Your task to perform on an android device: Where can I buy a nice beach blanket? Image 0: 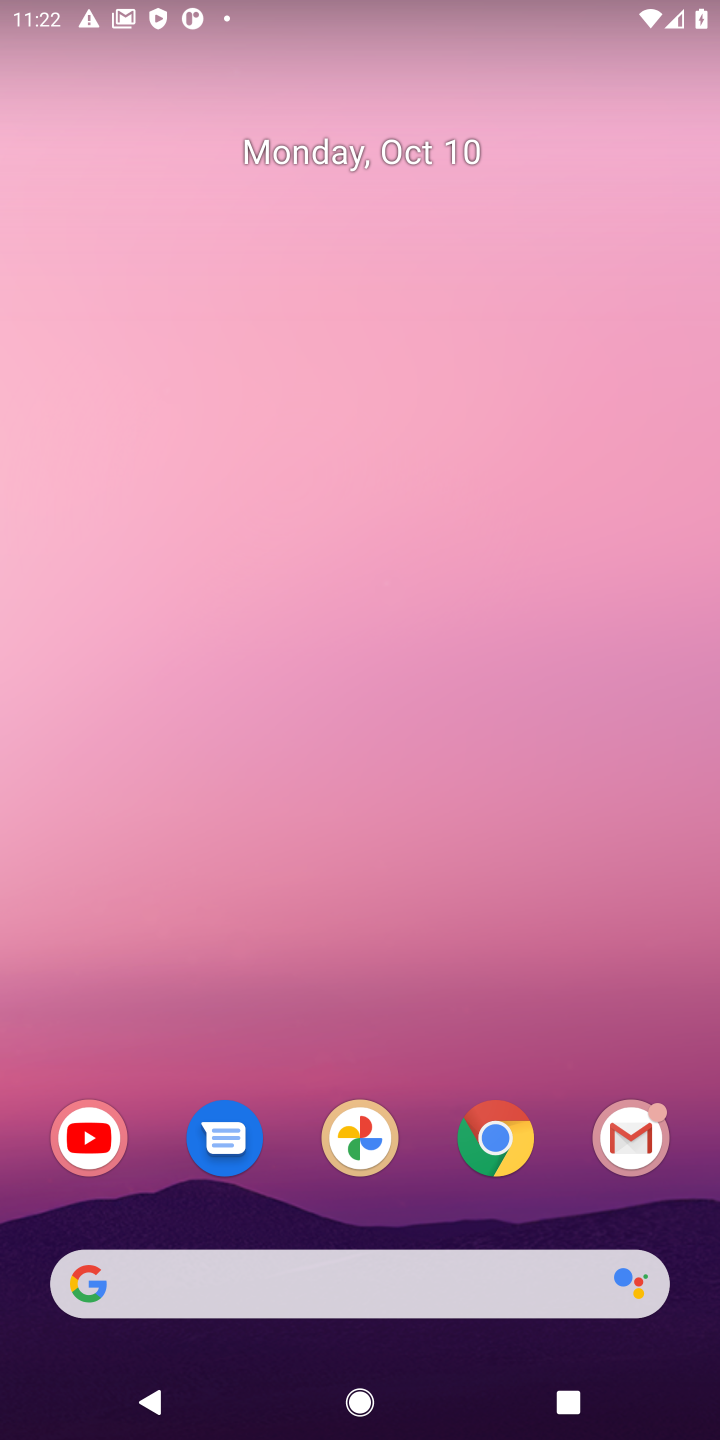
Step 0: click (84, 1285)
Your task to perform on an android device: Where can I buy a nice beach blanket? Image 1: 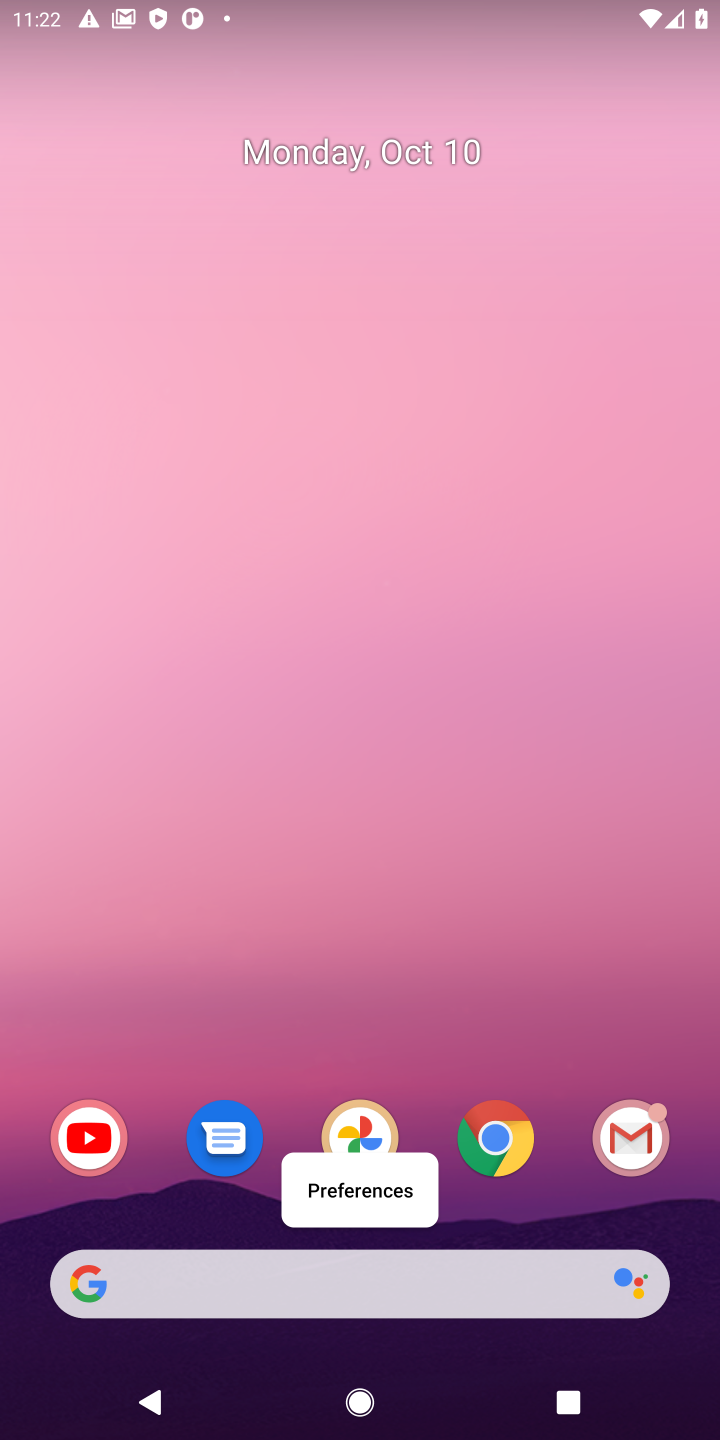
Step 1: click (82, 1291)
Your task to perform on an android device: Where can I buy a nice beach blanket? Image 2: 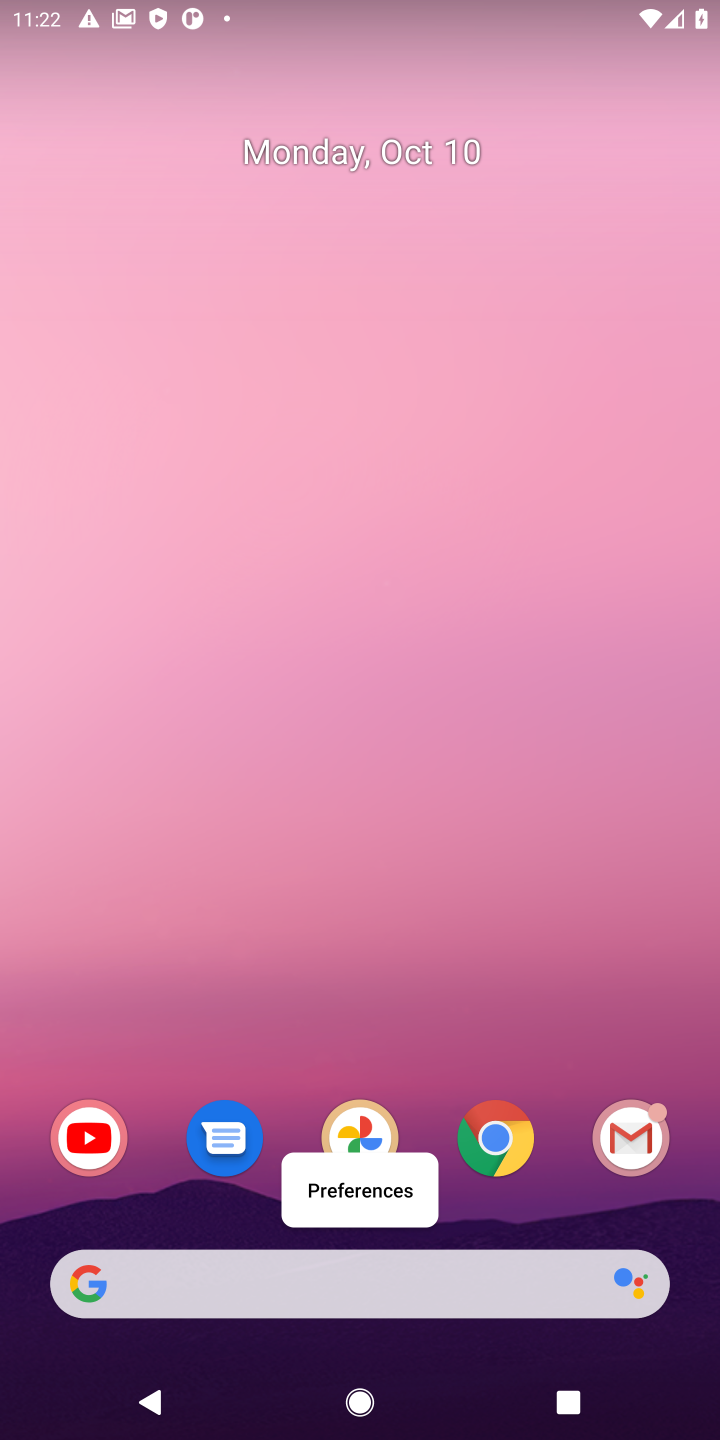
Step 2: click (82, 1280)
Your task to perform on an android device: Where can I buy a nice beach blanket? Image 3: 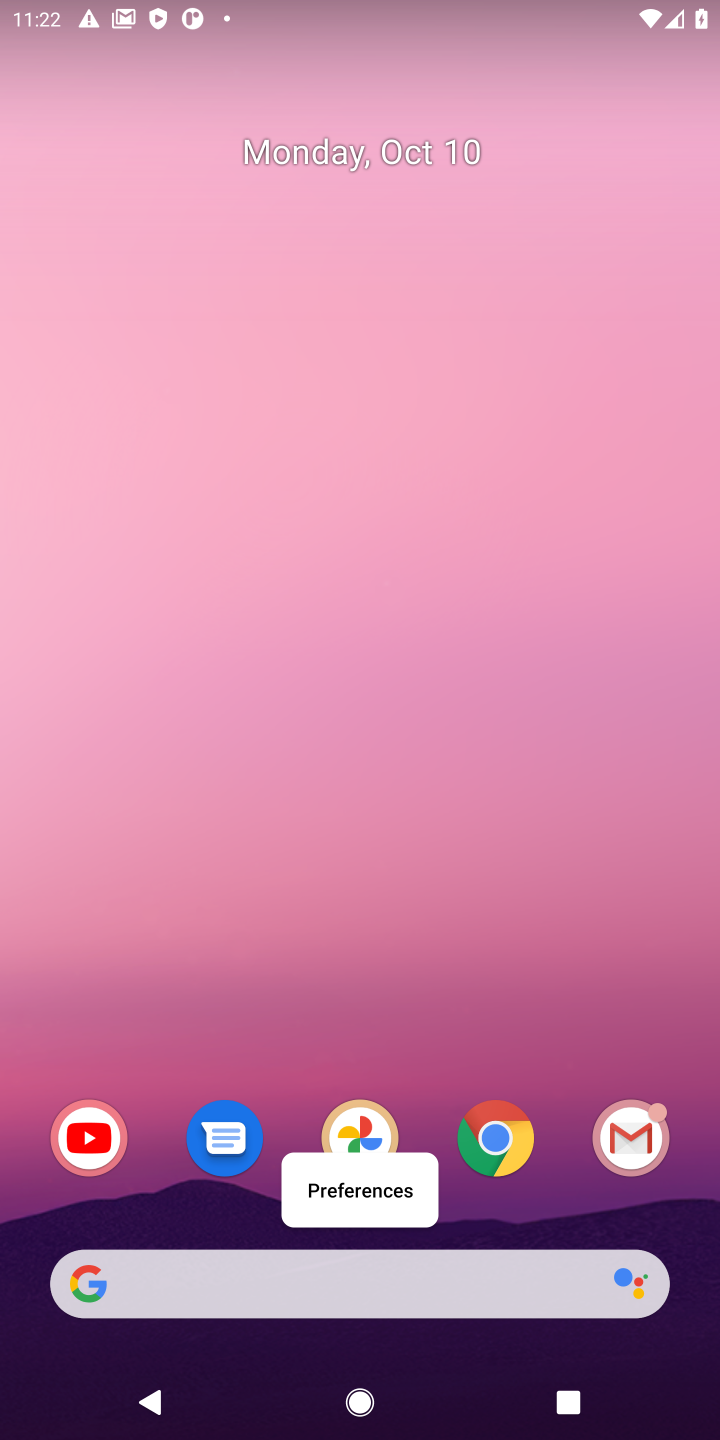
Step 3: click (84, 1280)
Your task to perform on an android device: Where can I buy a nice beach blanket? Image 4: 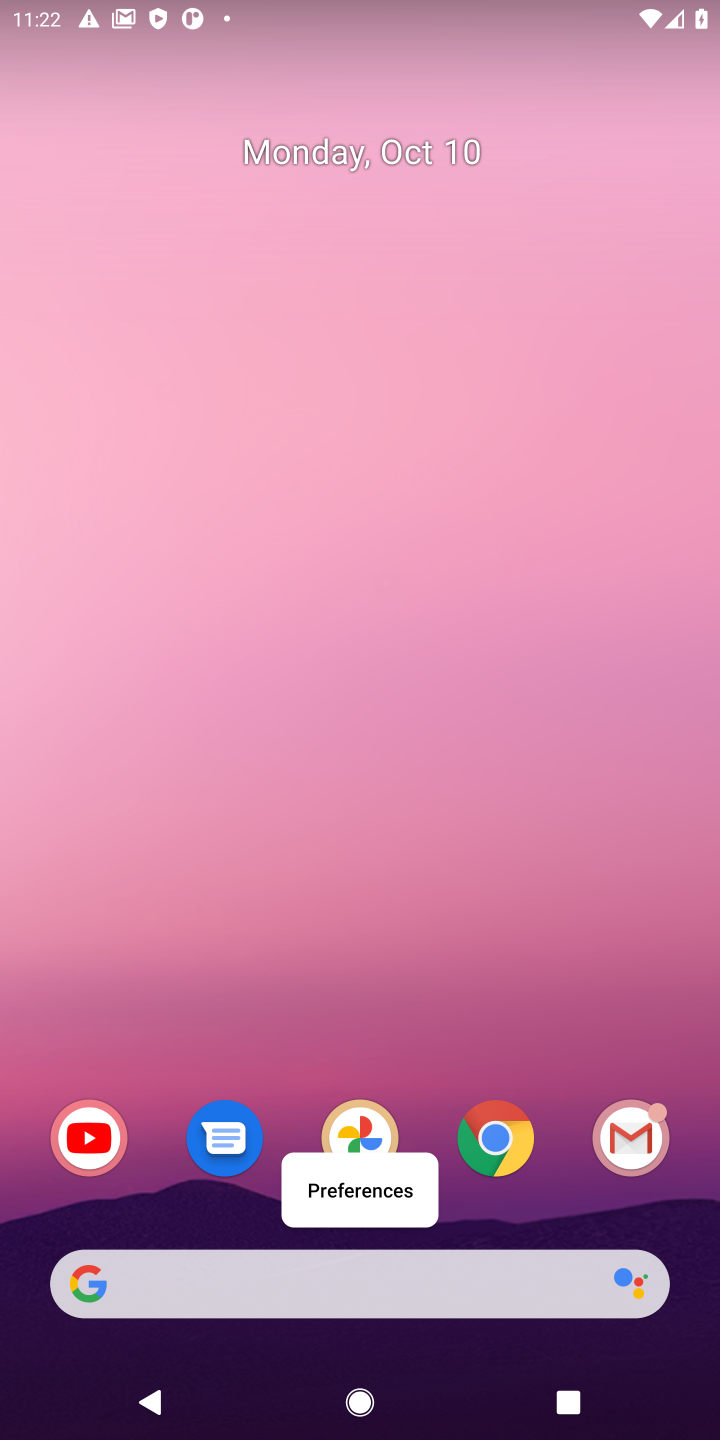
Step 4: click (93, 1292)
Your task to perform on an android device: Where can I buy a nice beach blanket? Image 5: 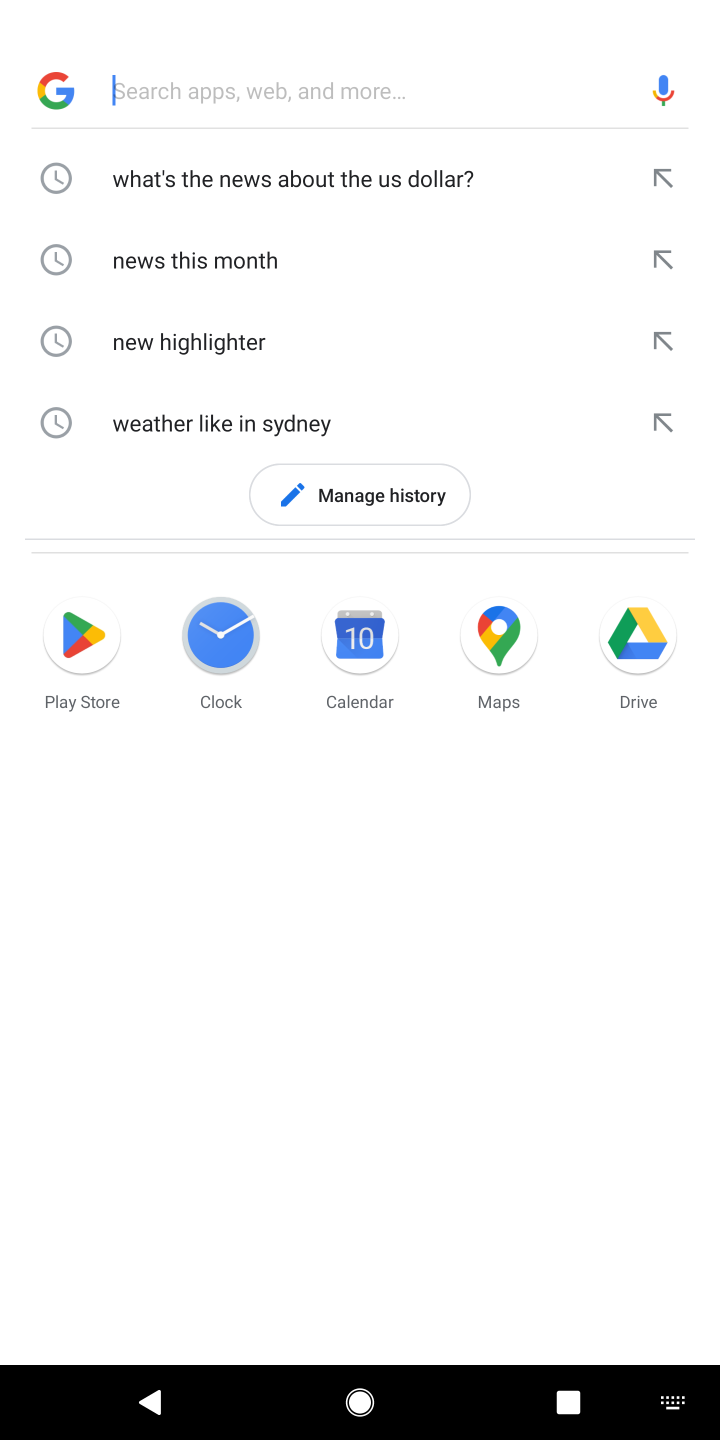
Step 5: type "Where can I buy a nice beach blanket?"
Your task to perform on an android device: Where can I buy a nice beach blanket? Image 6: 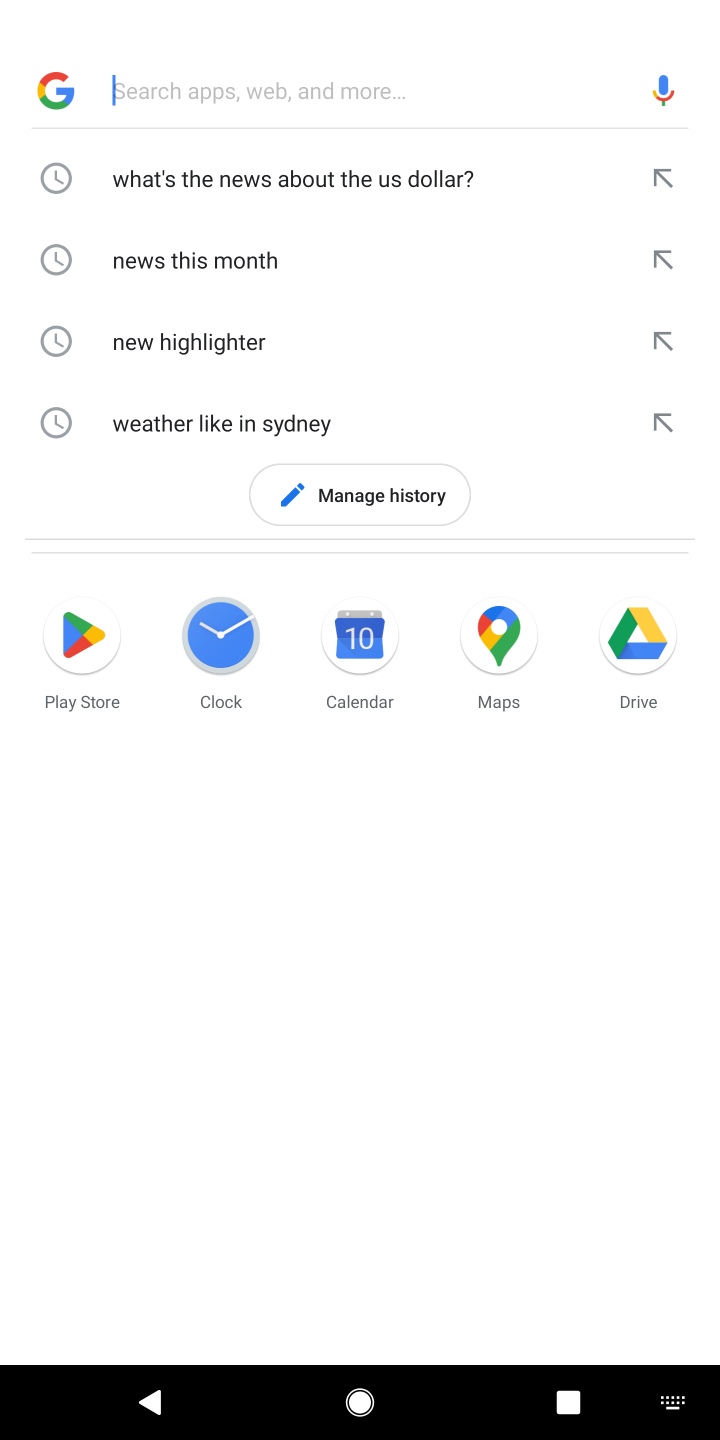
Step 6: click (329, 79)
Your task to perform on an android device: Where can I buy a nice beach blanket? Image 7: 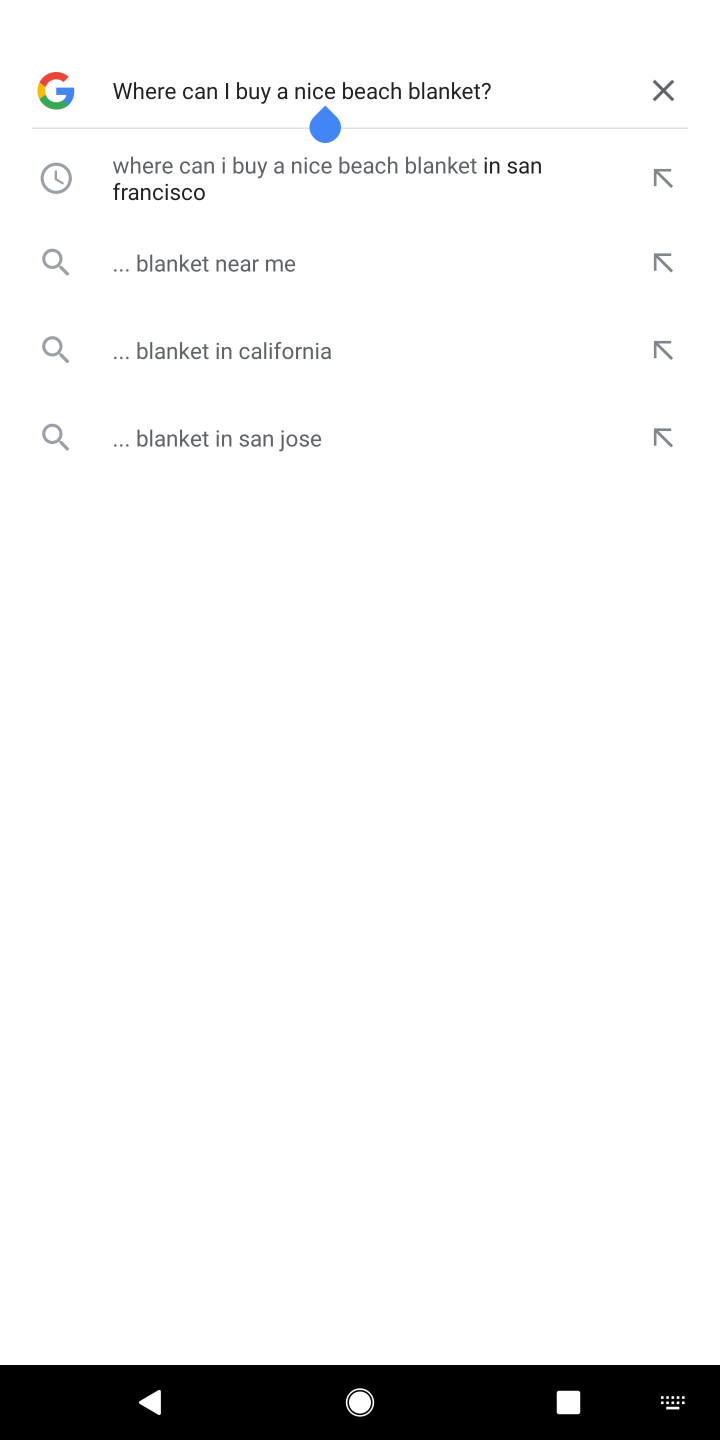
Step 7: press enter
Your task to perform on an android device: Where can I buy a nice beach blanket? Image 8: 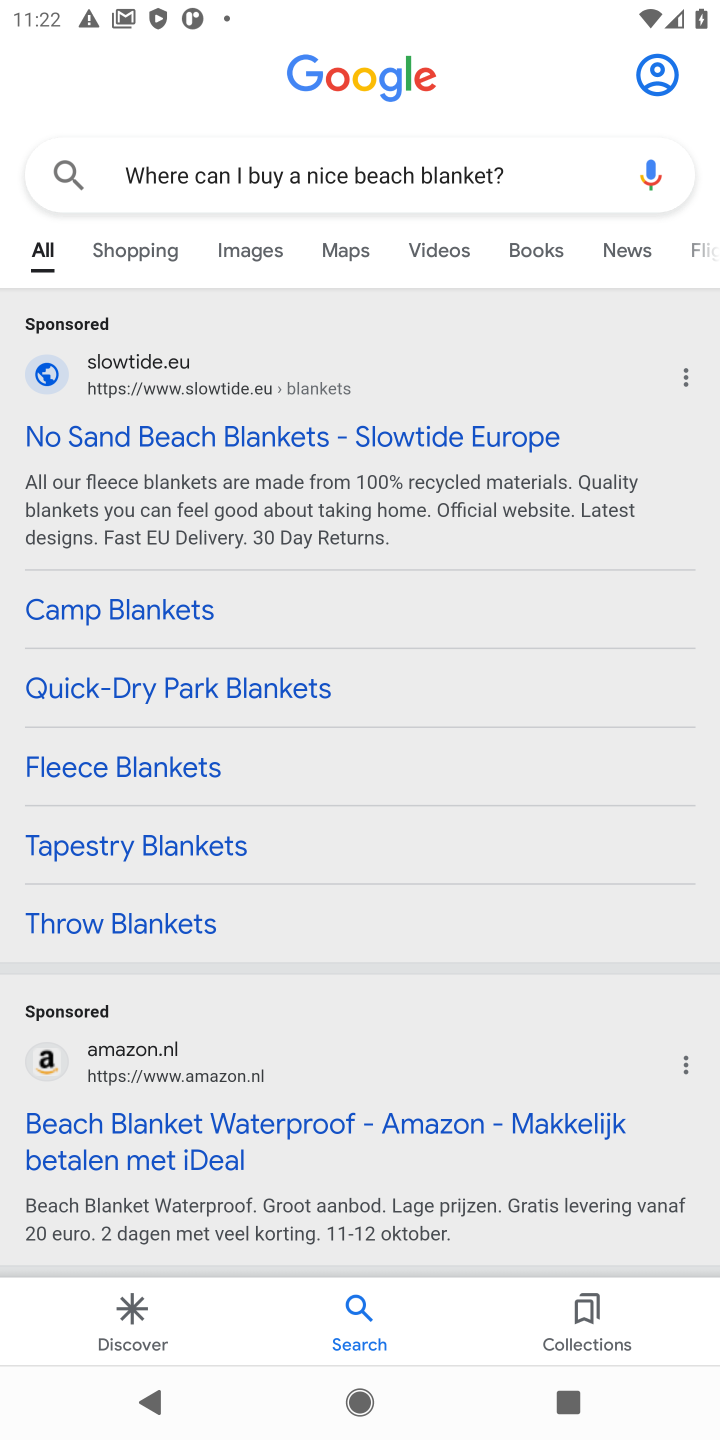
Step 8: task complete